Your task to perform on an android device: turn pop-ups on in chrome Image 0: 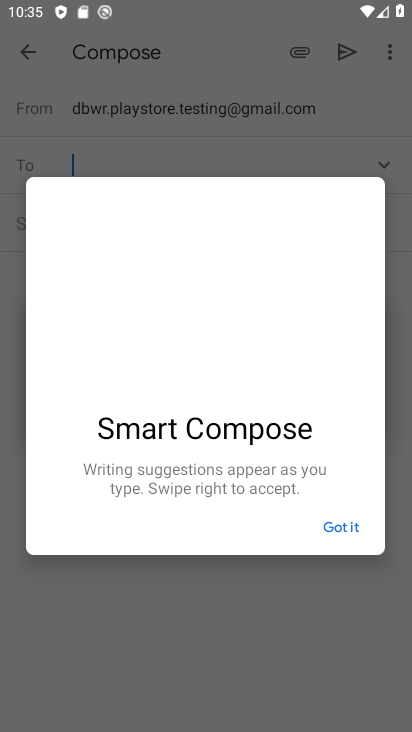
Step 0: press back button
Your task to perform on an android device: turn pop-ups on in chrome Image 1: 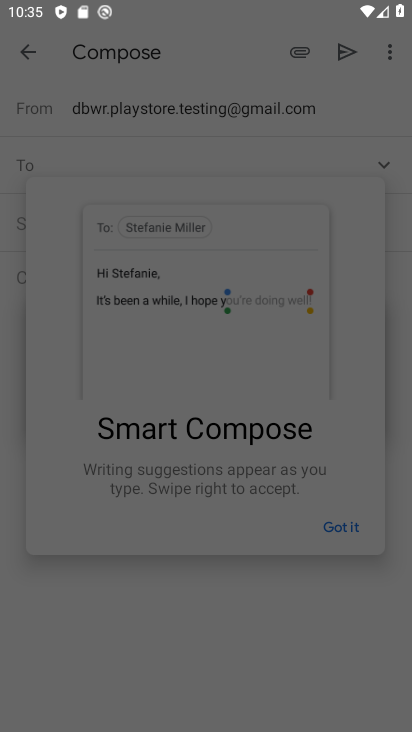
Step 1: click (341, 521)
Your task to perform on an android device: turn pop-ups on in chrome Image 2: 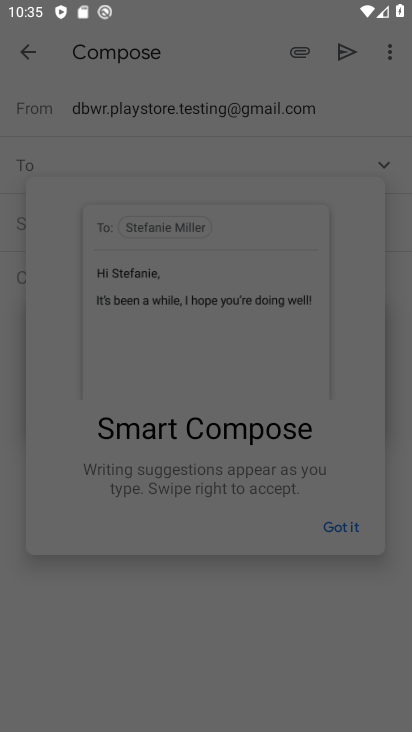
Step 2: press home button
Your task to perform on an android device: turn pop-ups on in chrome Image 3: 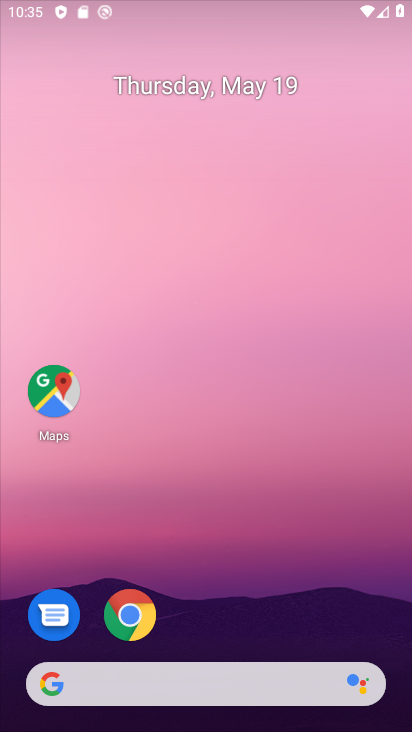
Step 3: drag from (290, 610) to (177, 169)
Your task to perform on an android device: turn pop-ups on in chrome Image 4: 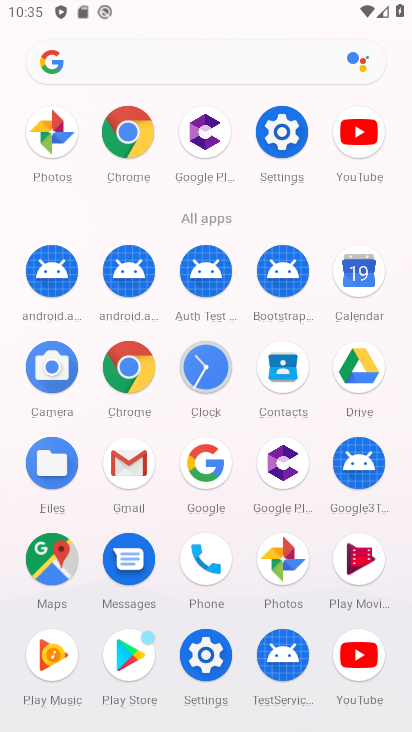
Step 4: click (115, 137)
Your task to perform on an android device: turn pop-ups on in chrome Image 5: 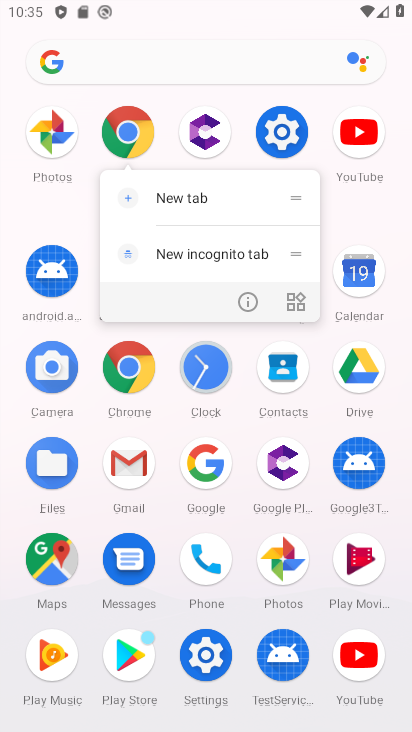
Step 5: click (115, 137)
Your task to perform on an android device: turn pop-ups on in chrome Image 6: 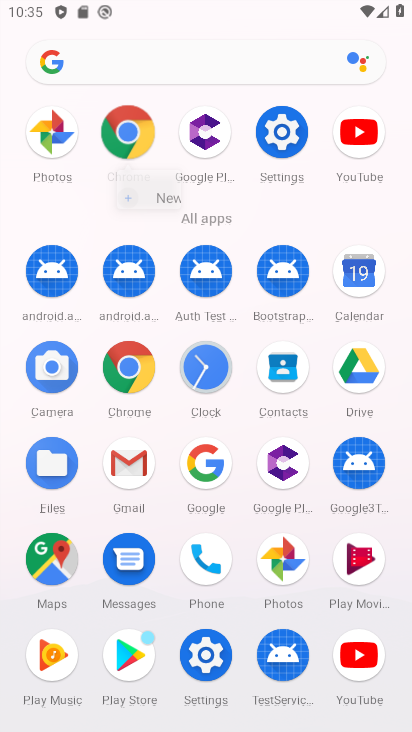
Step 6: click (115, 137)
Your task to perform on an android device: turn pop-ups on in chrome Image 7: 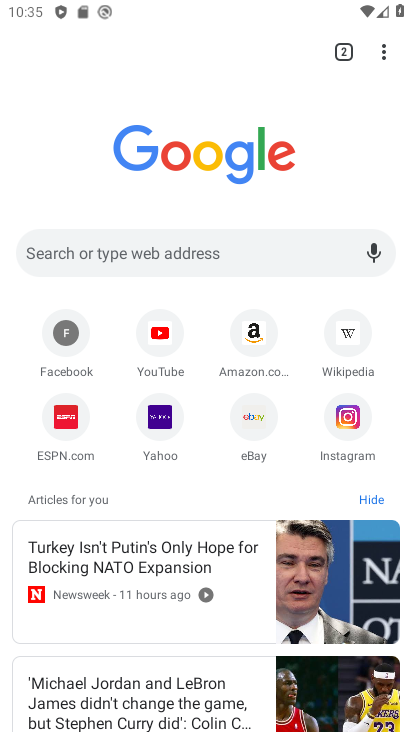
Step 7: drag from (380, 50) to (194, 441)
Your task to perform on an android device: turn pop-ups on in chrome Image 8: 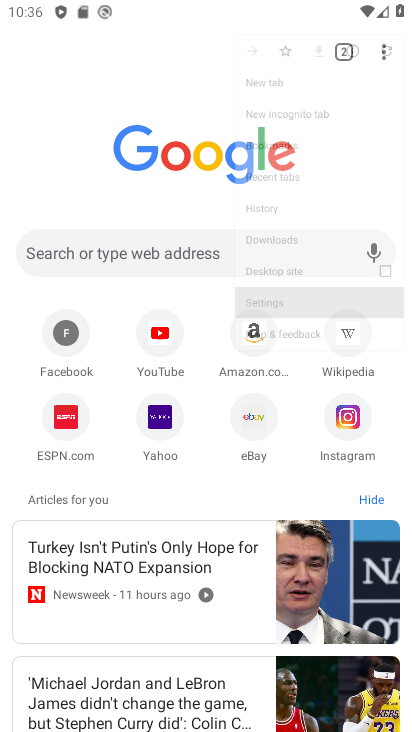
Step 8: click (194, 441)
Your task to perform on an android device: turn pop-ups on in chrome Image 9: 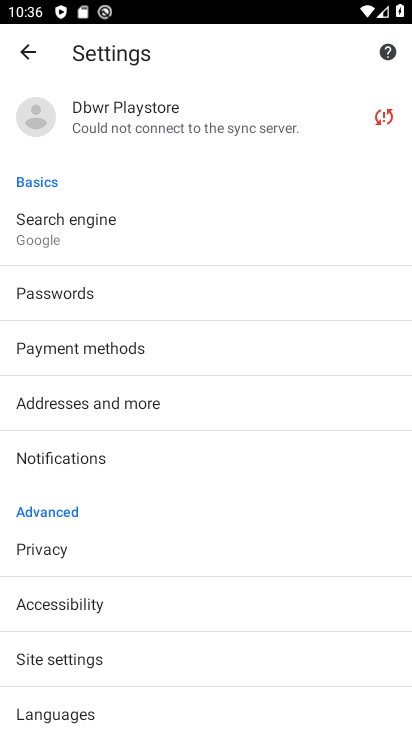
Step 9: click (62, 649)
Your task to perform on an android device: turn pop-ups on in chrome Image 10: 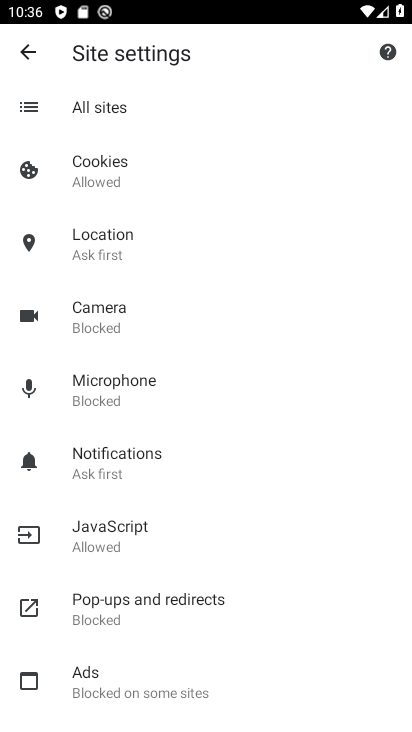
Step 10: click (113, 596)
Your task to perform on an android device: turn pop-ups on in chrome Image 11: 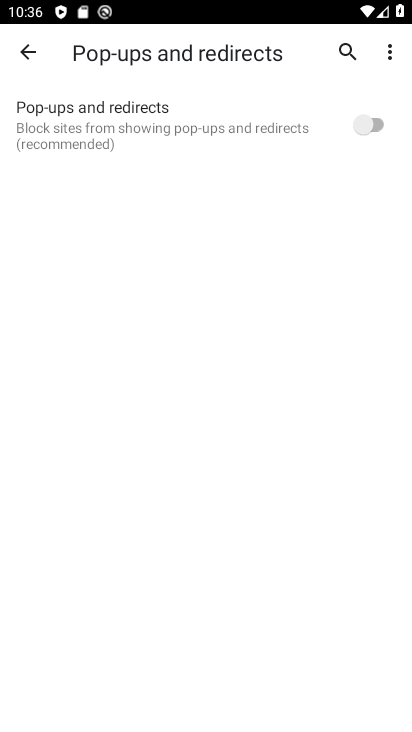
Step 11: click (363, 130)
Your task to perform on an android device: turn pop-ups on in chrome Image 12: 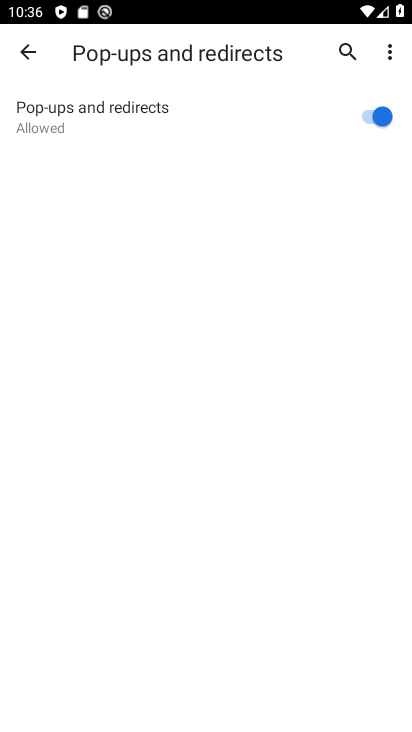
Step 12: task complete